Your task to perform on an android device: turn pop-ups on in chrome Image 0: 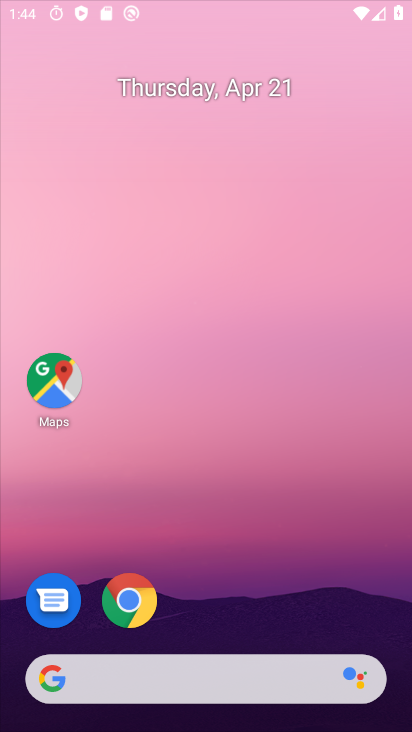
Step 0: drag from (311, 68) to (340, 34)
Your task to perform on an android device: turn pop-ups on in chrome Image 1: 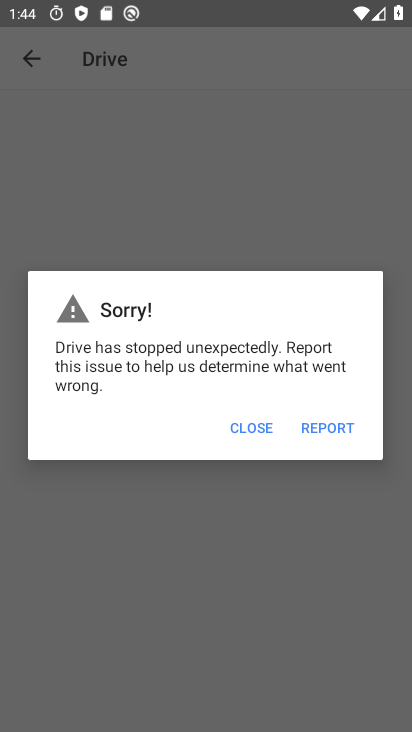
Step 1: press back button
Your task to perform on an android device: turn pop-ups on in chrome Image 2: 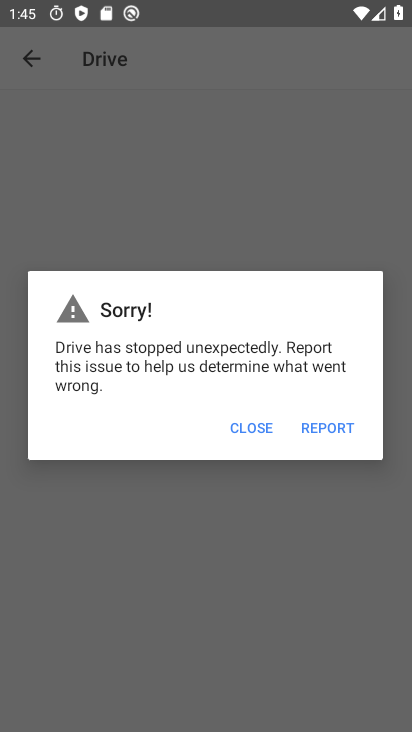
Step 2: press back button
Your task to perform on an android device: turn pop-ups on in chrome Image 3: 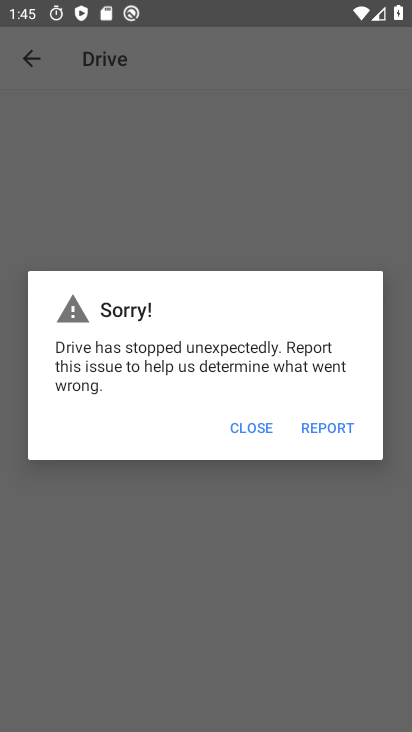
Step 3: press back button
Your task to perform on an android device: turn pop-ups on in chrome Image 4: 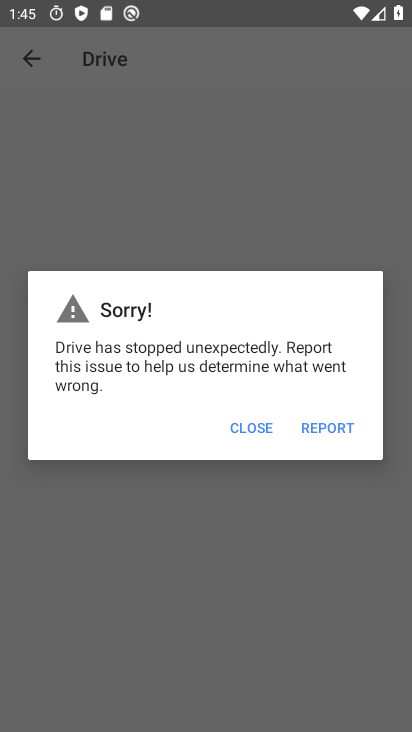
Step 4: press back button
Your task to perform on an android device: turn pop-ups on in chrome Image 5: 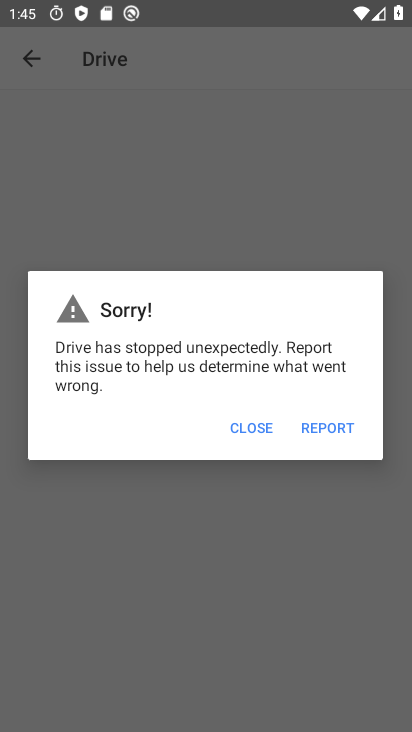
Step 5: press home button
Your task to perform on an android device: turn pop-ups on in chrome Image 6: 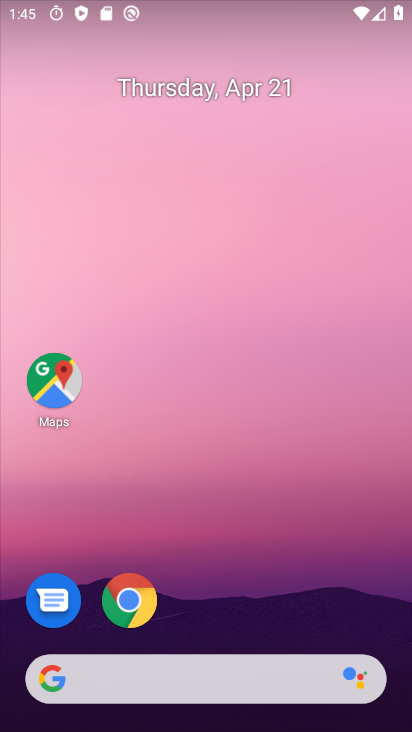
Step 6: click (136, 597)
Your task to perform on an android device: turn pop-ups on in chrome Image 7: 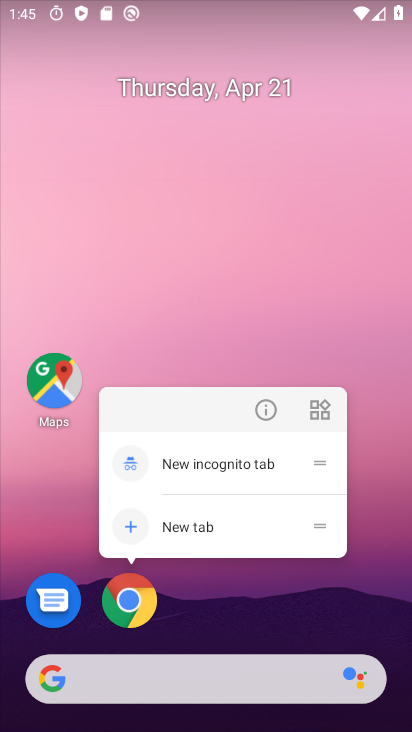
Step 7: click (132, 609)
Your task to perform on an android device: turn pop-ups on in chrome Image 8: 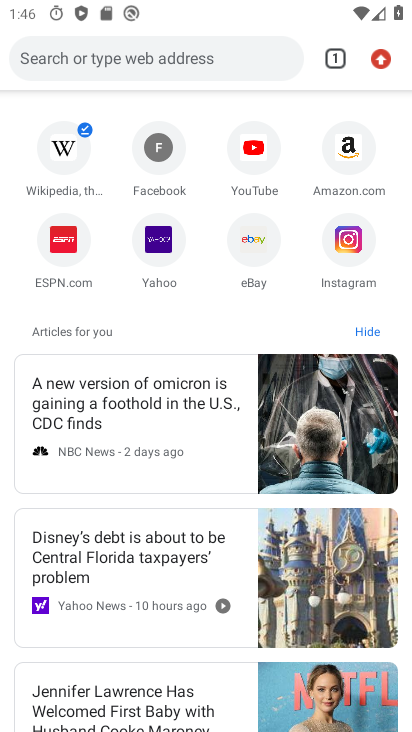
Step 8: drag from (383, 58) to (177, 554)
Your task to perform on an android device: turn pop-ups on in chrome Image 9: 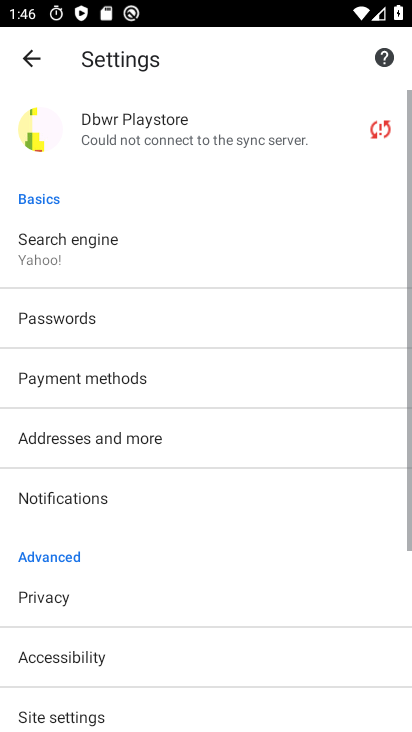
Step 9: drag from (161, 642) to (265, 104)
Your task to perform on an android device: turn pop-ups on in chrome Image 10: 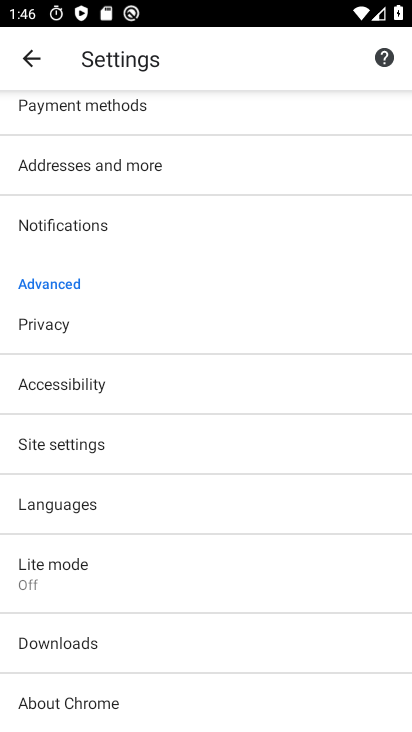
Step 10: click (93, 438)
Your task to perform on an android device: turn pop-ups on in chrome Image 11: 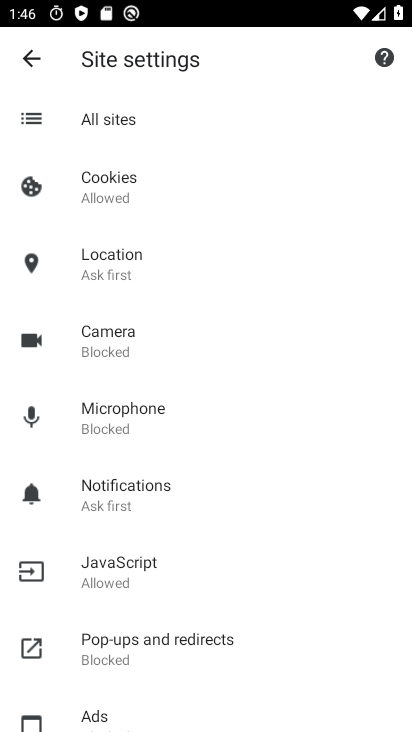
Step 11: click (132, 637)
Your task to perform on an android device: turn pop-ups on in chrome Image 12: 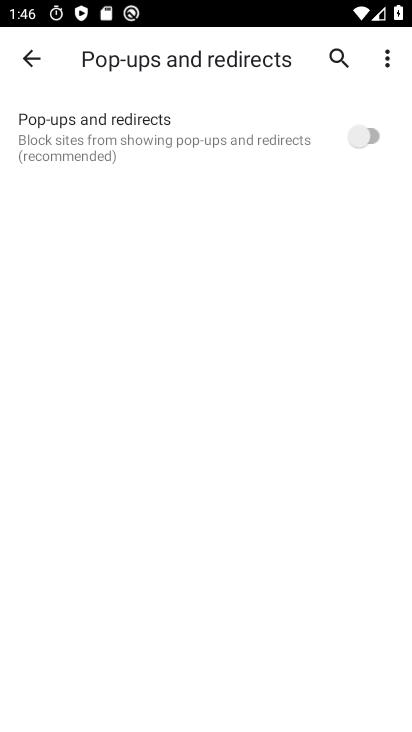
Step 12: click (359, 137)
Your task to perform on an android device: turn pop-ups on in chrome Image 13: 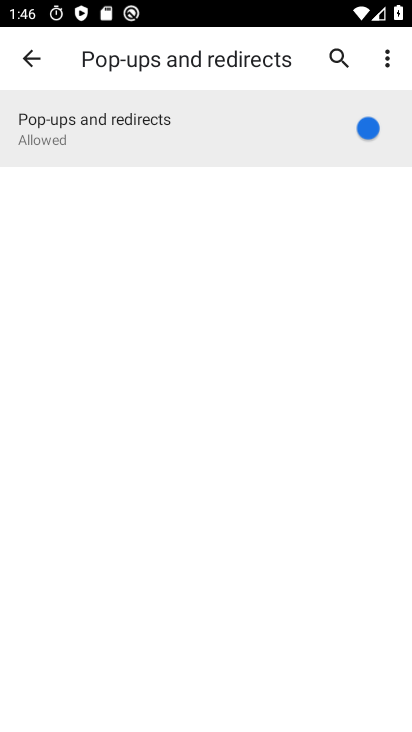
Step 13: task complete